Your task to perform on an android device: Add alienware aurora to the cart on walmart, then select checkout. Image 0: 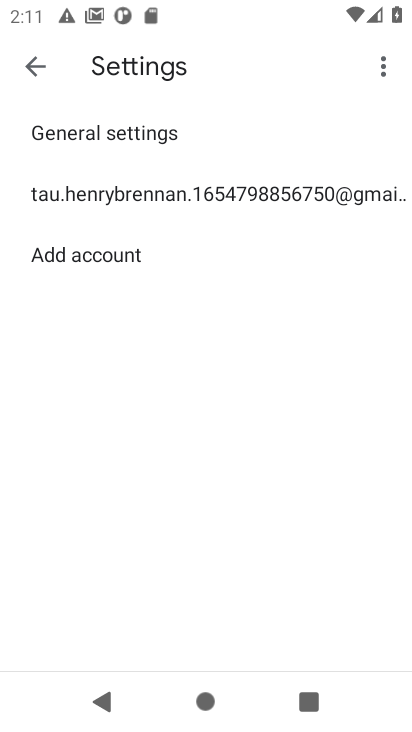
Step 0: press home button
Your task to perform on an android device: Add alienware aurora to the cart on walmart, then select checkout. Image 1: 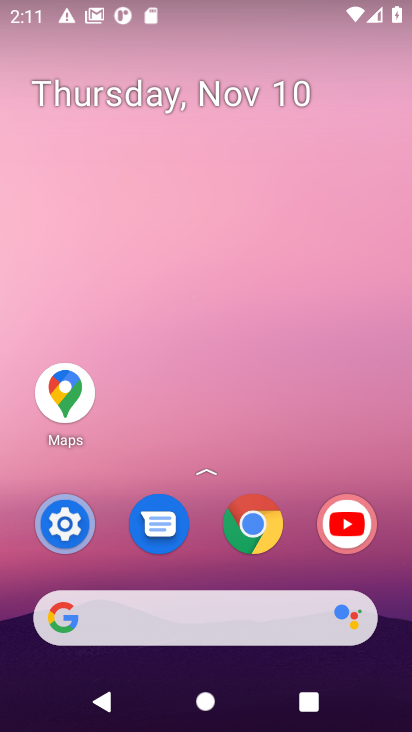
Step 1: click (243, 533)
Your task to perform on an android device: Add alienware aurora to the cart on walmart, then select checkout. Image 2: 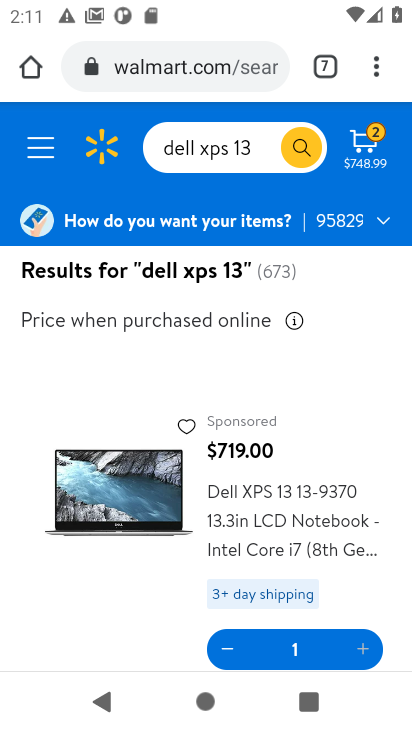
Step 2: click (220, 152)
Your task to perform on an android device: Add alienware aurora to the cart on walmart, then select checkout. Image 3: 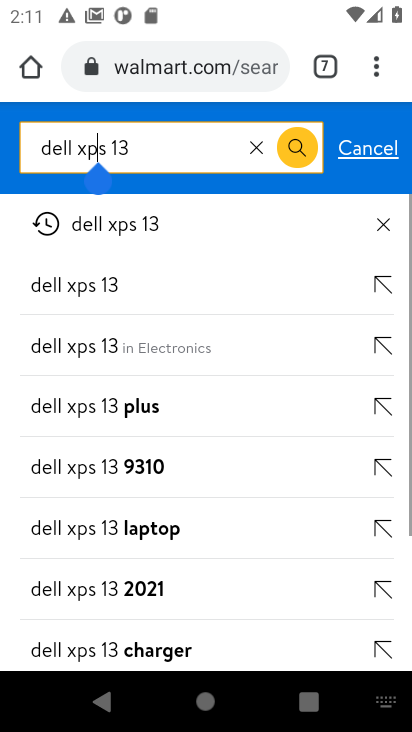
Step 3: click (257, 149)
Your task to perform on an android device: Add alienware aurora to the cart on walmart, then select checkout. Image 4: 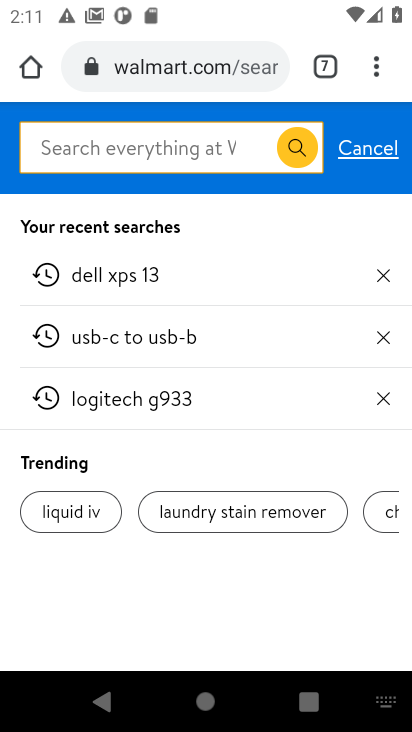
Step 4: type "alienware aurora "
Your task to perform on an android device: Add alienware aurora to the cart on walmart, then select checkout. Image 5: 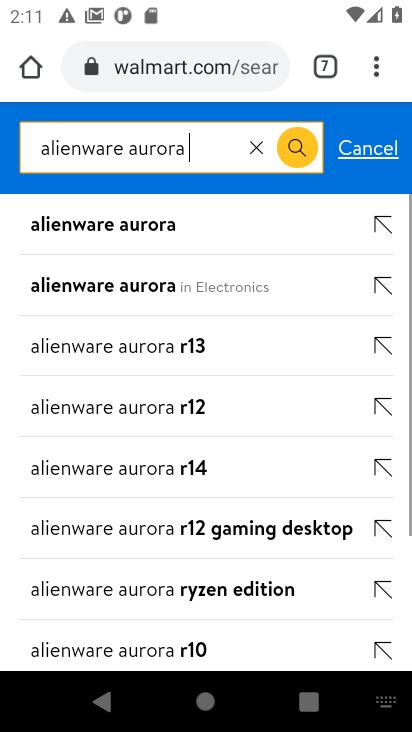
Step 5: click (170, 280)
Your task to perform on an android device: Add alienware aurora to the cart on walmart, then select checkout. Image 6: 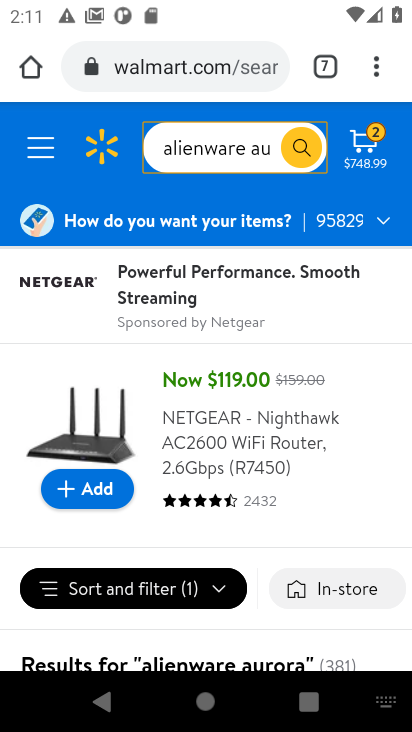
Step 6: drag from (225, 539) to (199, 299)
Your task to perform on an android device: Add alienware aurora to the cart on walmart, then select checkout. Image 7: 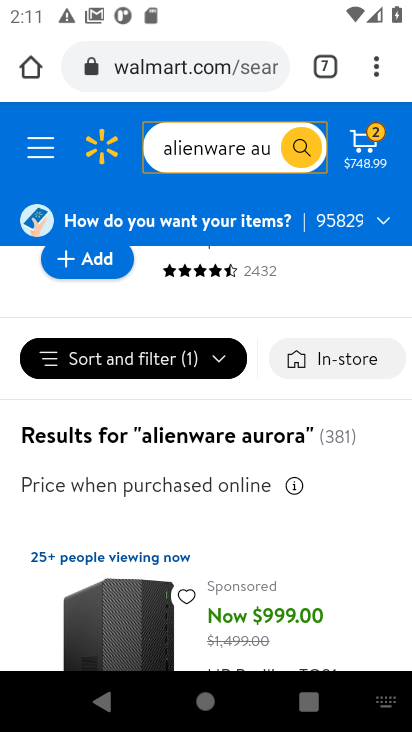
Step 7: drag from (218, 532) to (132, 157)
Your task to perform on an android device: Add alienware aurora to the cart on walmart, then select checkout. Image 8: 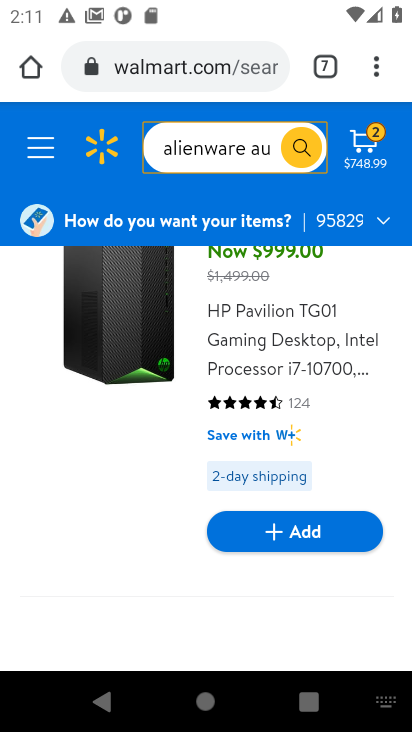
Step 8: drag from (158, 521) to (141, 163)
Your task to perform on an android device: Add alienware aurora to the cart on walmart, then select checkout. Image 9: 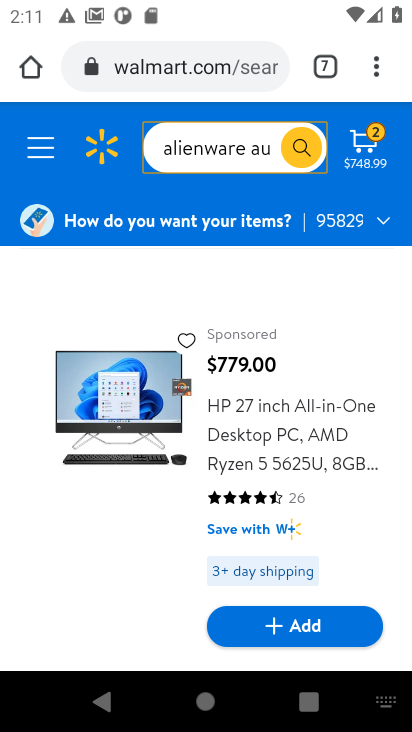
Step 9: drag from (150, 564) to (218, 168)
Your task to perform on an android device: Add alienware aurora to the cart on walmart, then select checkout. Image 10: 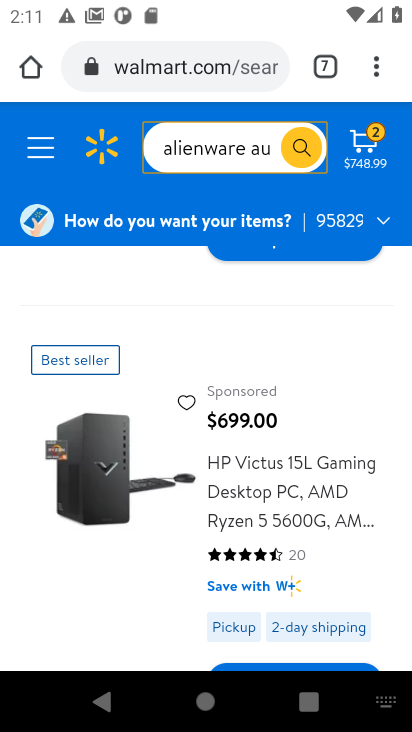
Step 10: drag from (156, 542) to (129, 284)
Your task to perform on an android device: Add alienware aurora to the cart on walmart, then select checkout. Image 11: 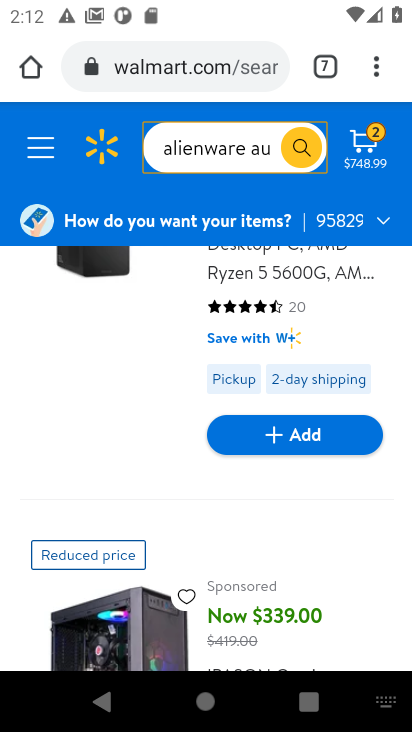
Step 11: drag from (168, 511) to (164, 199)
Your task to perform on an android device: Add alienware aurora to the cart on walmart, then select checkout. Image 12: 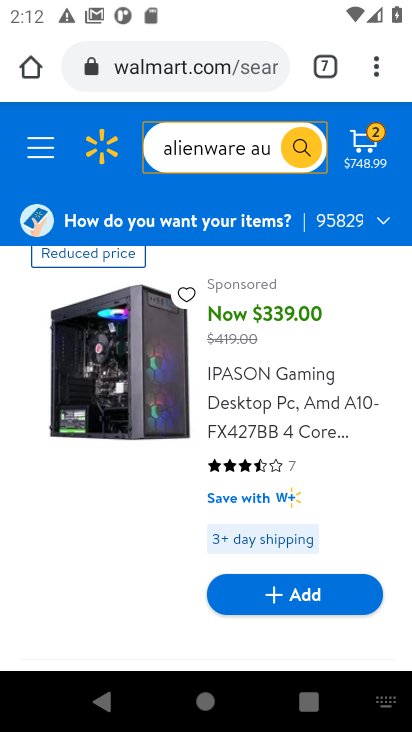
Step 12: drag from (150, 604) to (132, 322)
Your task to perform on an android device: Add alienware aurora to the cart on walmart, then select checkout. Image 13: 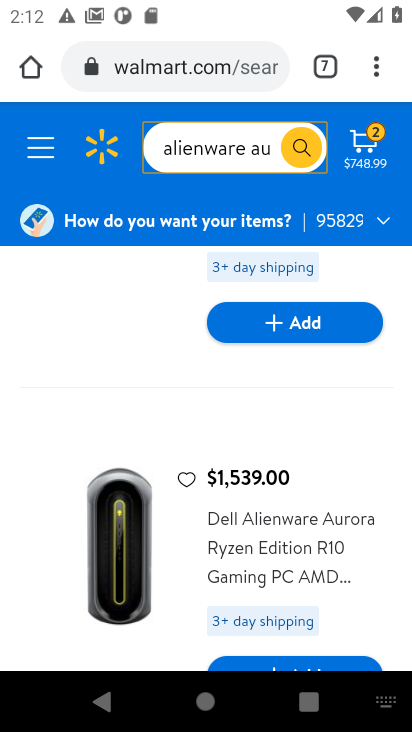
Step 13: click (248, 661)
Your task to perform on an android device: Add alienware aurora to the cart on walmart, then select checkout. Image 14: 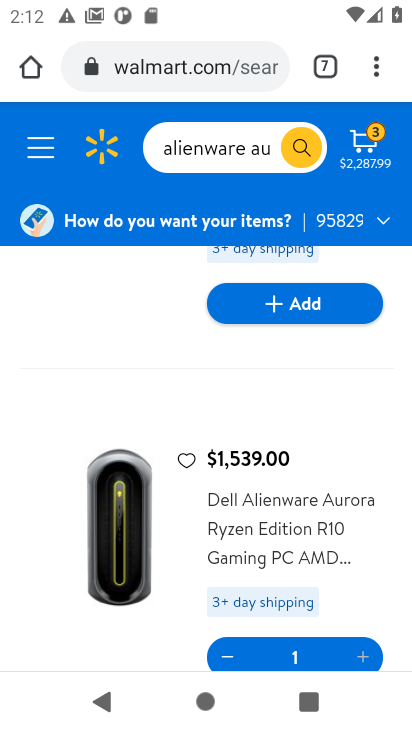
Step 14: click (368, 153)
Your task to perform on an android device: Add alienware aurora to the cart on walmart, then select checkout. Image 15: 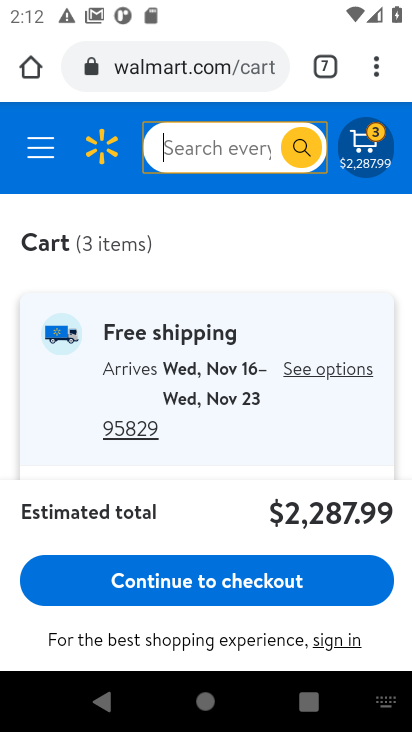
Step 15: click (222, 582)
Your task to perform on an android device: Add alienware aurora to the cart on walmart, then select checkout. Image 16: 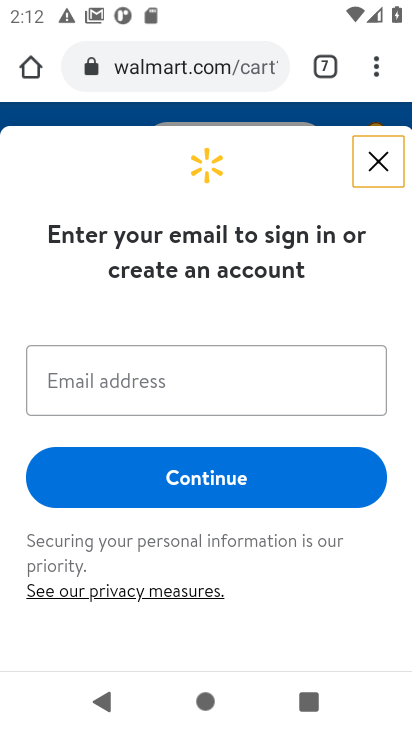
Step 16: click (381, 160)
Your task to perform on an android device: Add alienware aurora to the cart on walmart, then select checkout. Image 17: 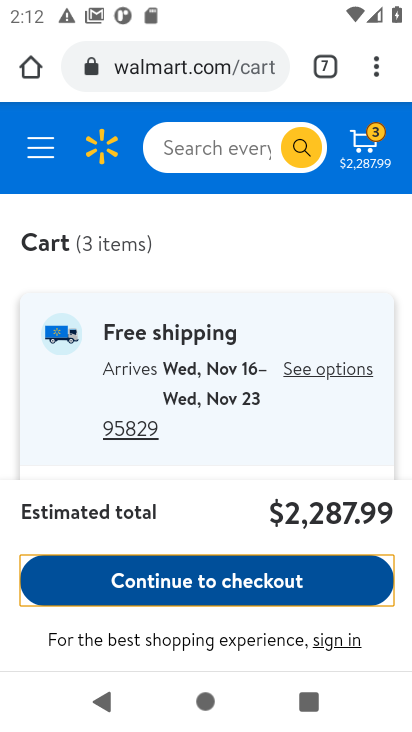
Step 17: task complete